Your task to perform on an android device: refresh tabs in the chrome app Image 0: 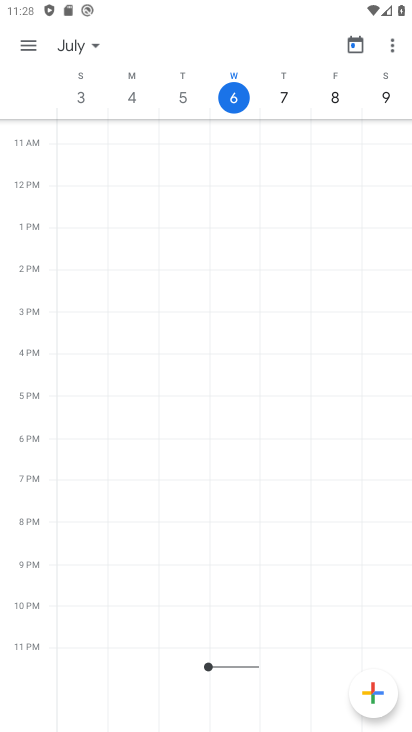
Step 0: press home button
Your task to perform on an android device: refresh tabs in the chrome app Image 1: 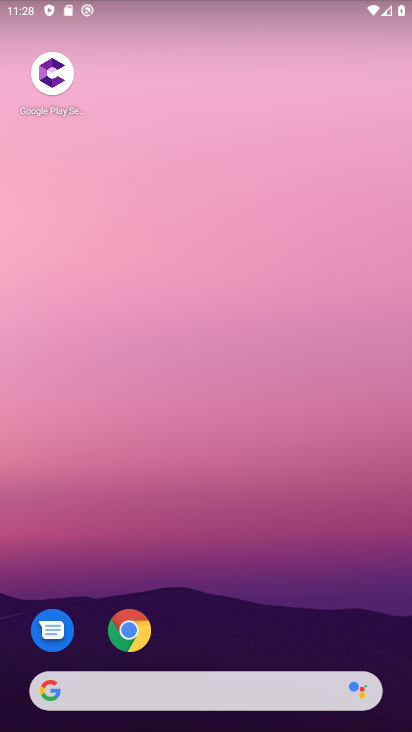
Step 1: drag from (262, 630) to (233, 232)
Your task to perform on an android device: refresh tabs in the chrome app Image 2: 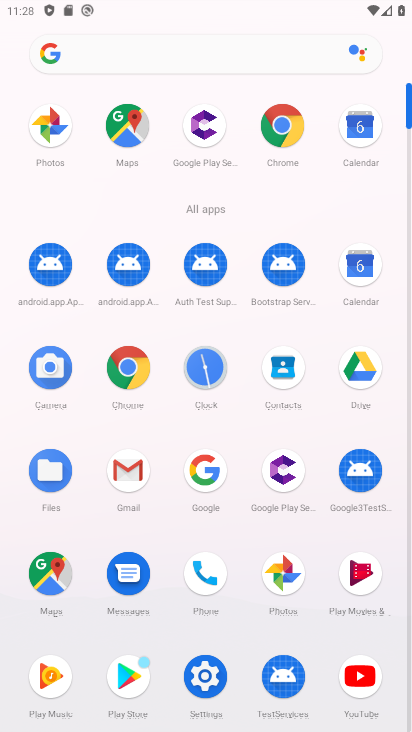
Step 2: click (282, 140)
Your task to perform on an android device: refresh tabs in the chrome app Image 3: 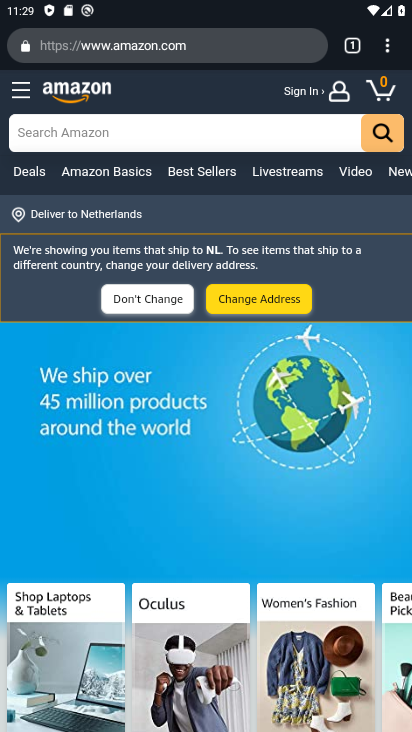
Step 3: click (387, 43)
Your task to perform on an android device: refresh tabs in the chrome app Image 4: 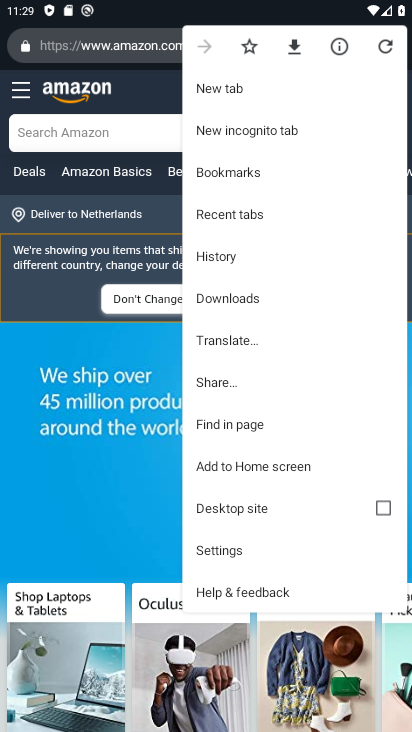
Step 4: click (387, 43)
Your task to perform on an android device: refresh tabs in the chrome app Image 5: 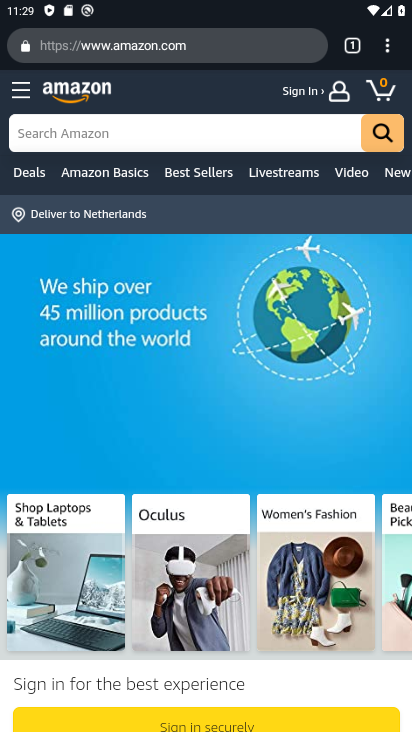
Step 5: task complete